Your task to perform on an android device: What's the weather today? Image 0: 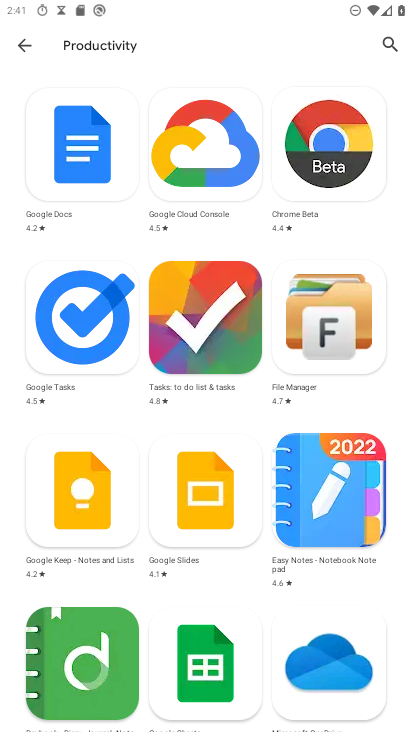
Step 0: press home button
Your task to perform on an android device: What's the weather today? Image 1: 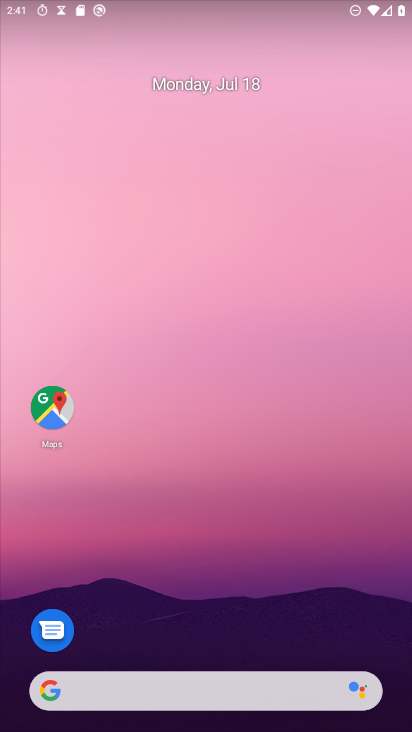
Step 1: drag from (230, 670) to (296, 1)
Your task to perform on an android device: What's the weather today? Image 2: 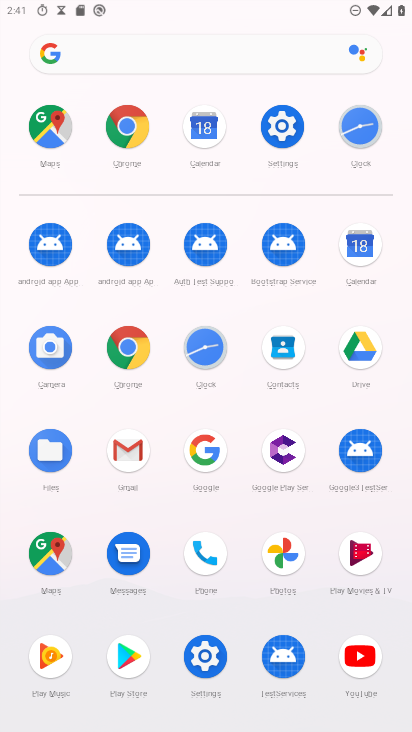
Step 2: click (132, 352)
Your task to perform on an android device: What's the weather today? Image 3: 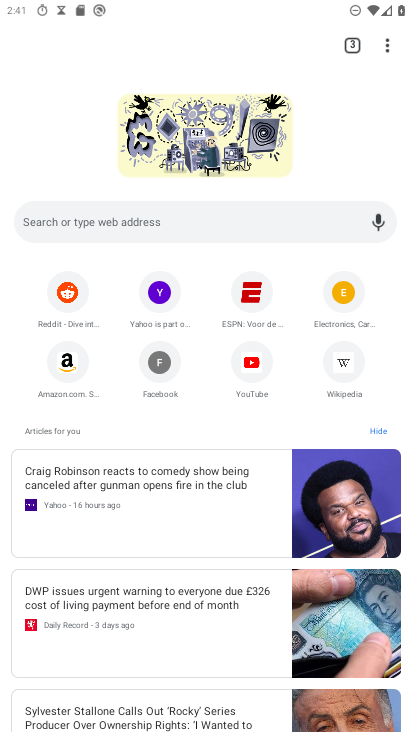
Step 3: click (166, 225)
Your task to perform on an android device: What's the weather today? Image 4: 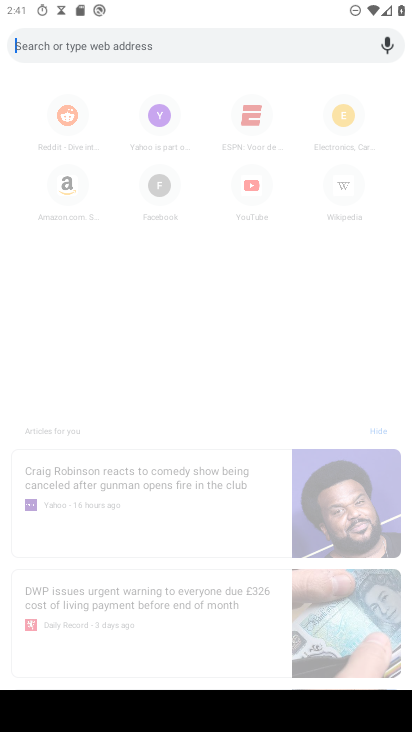
Step 4: type "weather today"
Your task to perform on an android device: What's the weather today? Image 5: 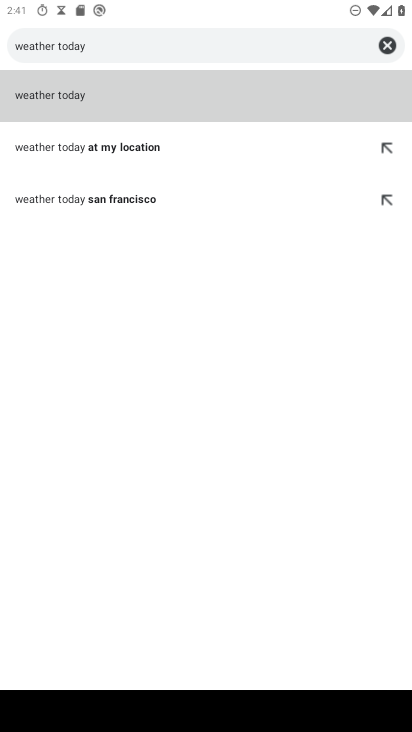
Step 5: click (122, 111)
Your task to perform on an android device: What's the weather today? Image 6: 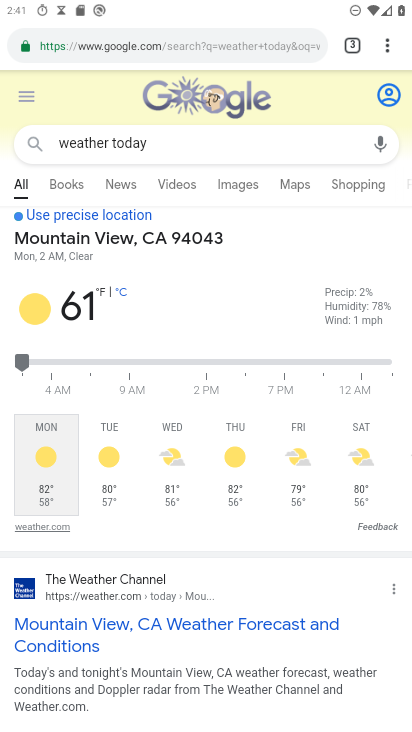
Step 6: task complete